Your task to perform on an android device: Search for Italian restaurants on Maps Image 0: 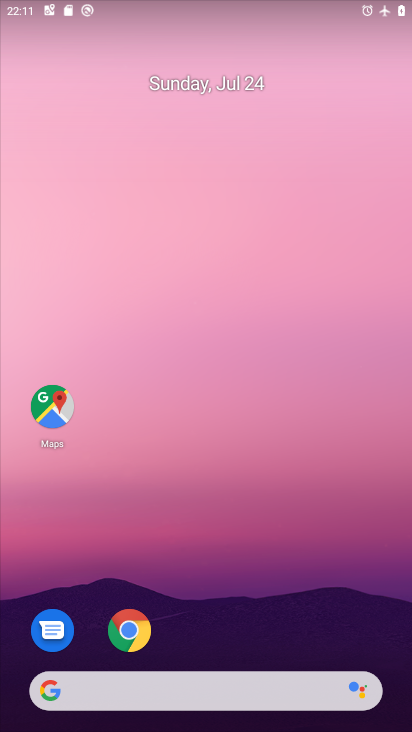
Step 0: drag from (262, 657) to (281, 254)
Your task to perform on an android device: Search for Italian restaurants on Maps Image 1: 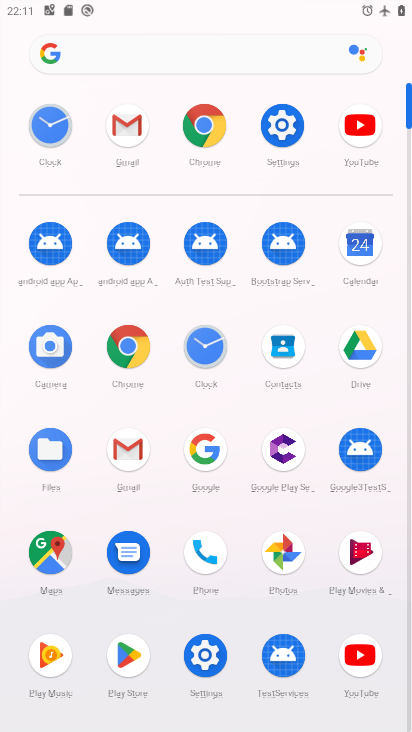
Step 1: click (52, 535)
Your task to perform on an android device: Search for Italian restaurants on Maps Image 2: 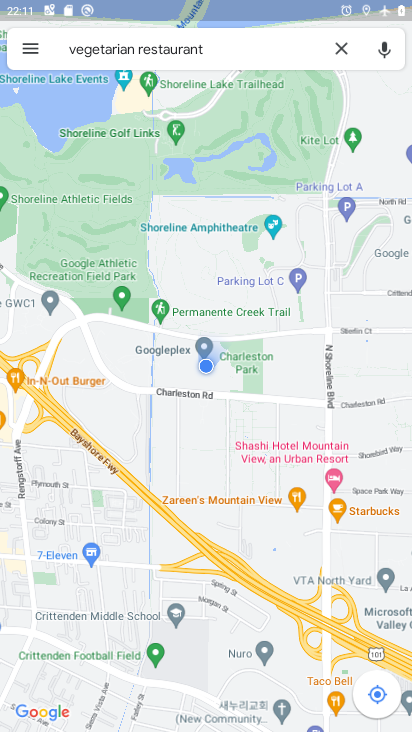
Step 2: click (345, 50)
Your task to perform on an android device: Search for Italian restaurants on Maps Image 3: 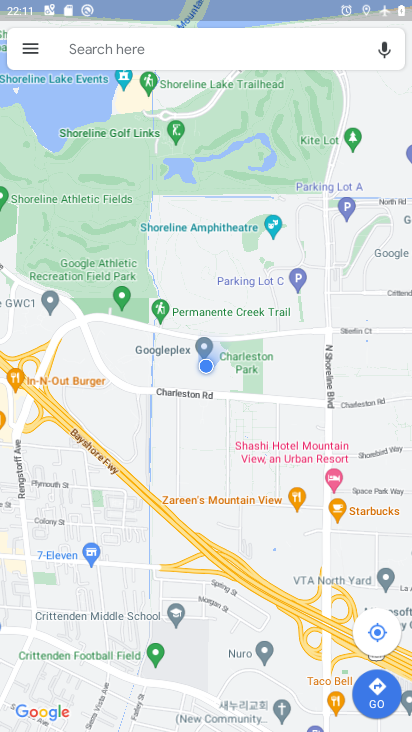
Step 3: click (119, 39)
Your task to perform on an android device: Search for Italian restaurants on Maps Image 4: 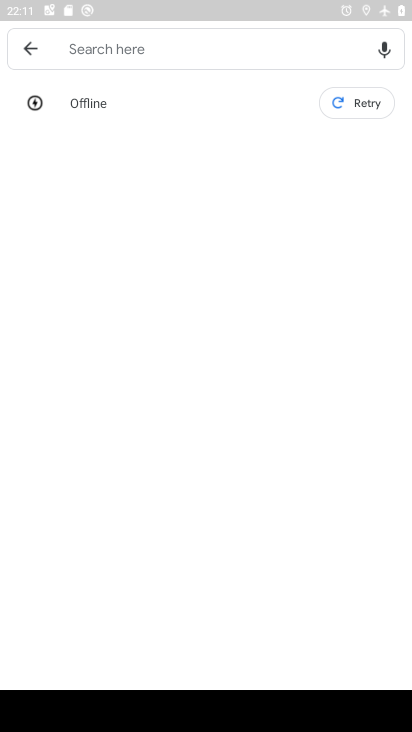
Step 4: click (139, 47)
Your task to perform on an android device: Search for Italian restaurants on Maps Image 5: 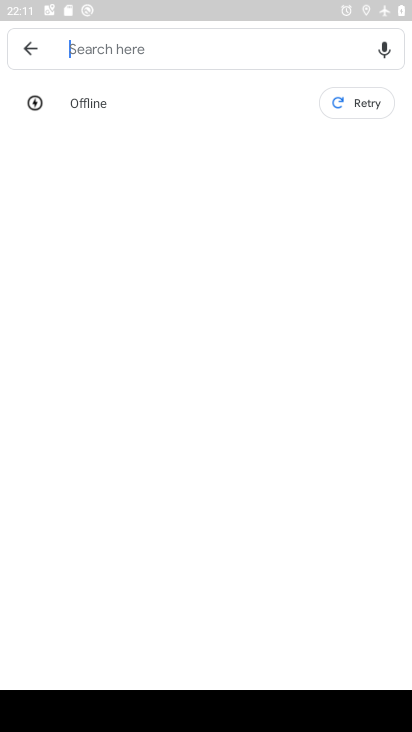
Step 5: type "r Italian restaurants "
Your task to perform on an android device: Search for Italian restaurants on Maps Image 6: 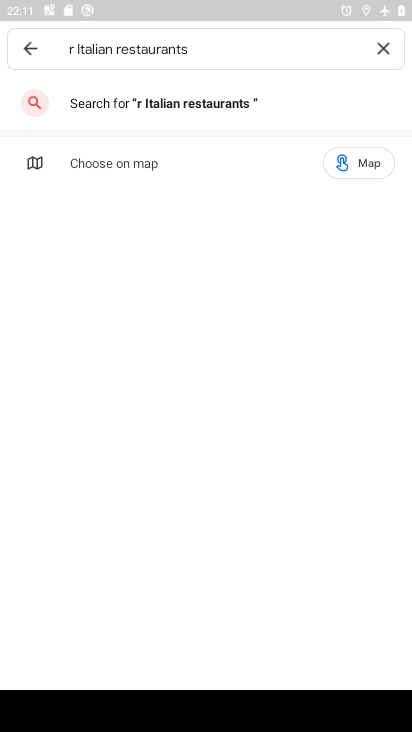
Step 6: click (254, 104)
Your task to perform on an android device: Search for Italian restaurants on Maps Image 7: 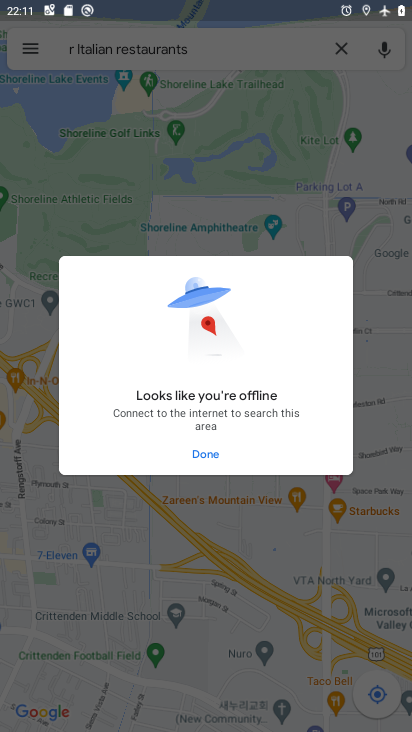
Step 7: task complete